Your task to perform on an android device: Go to internet settings Image 0: 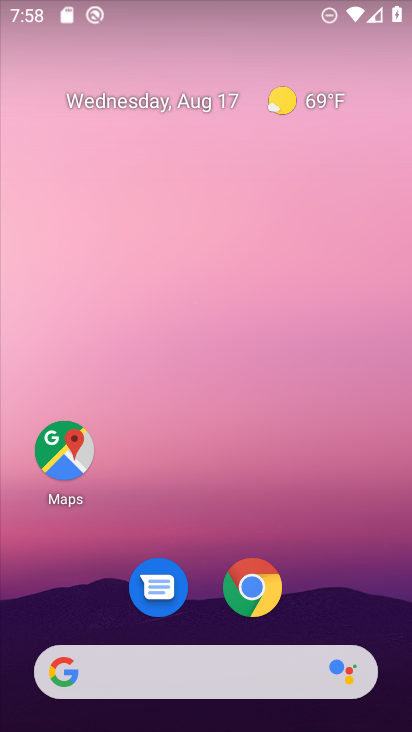
Step 0: click (53, 467)
Your task to perform on an android device: Go to internet settings Image 1: 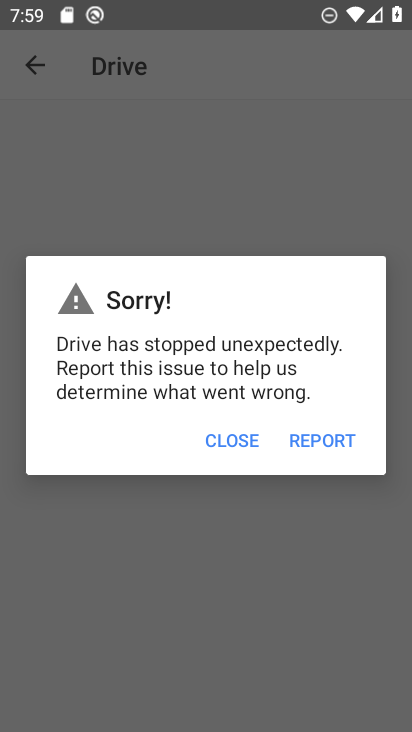
Step 1: press home button
Your task to perform on an android device: Go to internet settings Image 2: 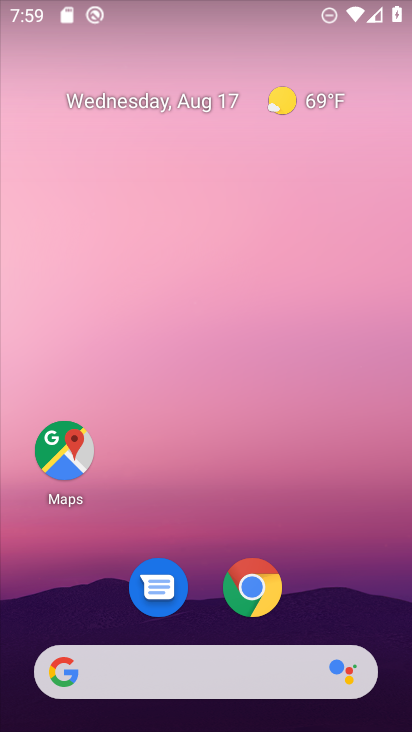
Step 2: drag from (32, 708) to (281, 263)
Your task to perform on an android device: Go to internet settings Image 3: 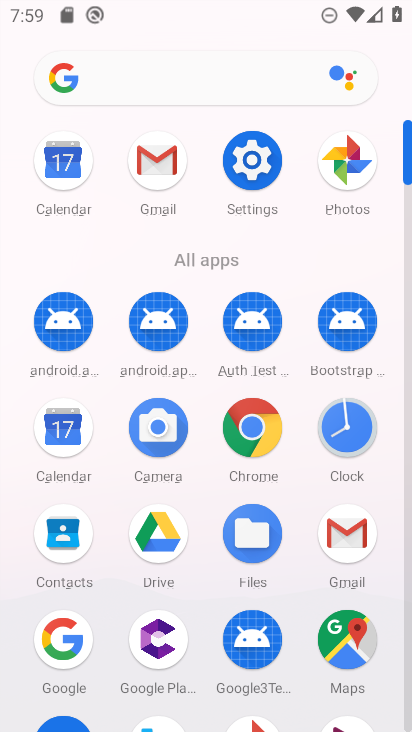
Step 3: click (246, 173)
Your task to perform on an android device: Go to internet settings Image 4: 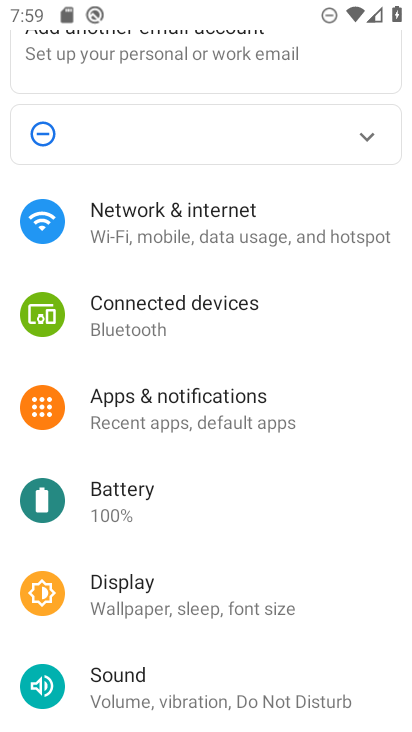
Step 4: click (217, 223)
Your task to perform on an android device: Go to internet settings Image 5: 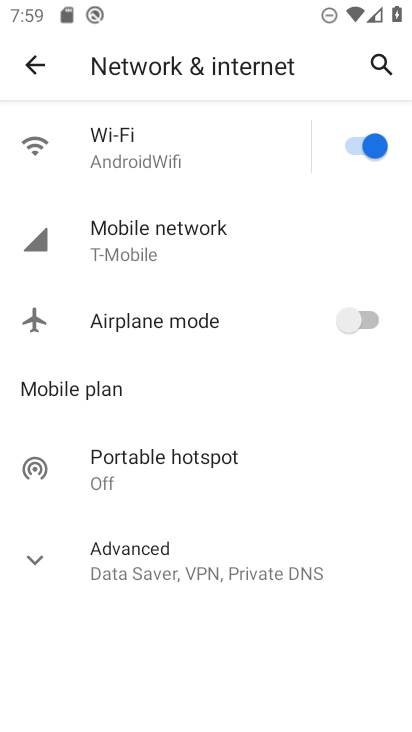
Step 5: task complete